Your task to perform on an android device: turn on improve location accuracy Image 0: 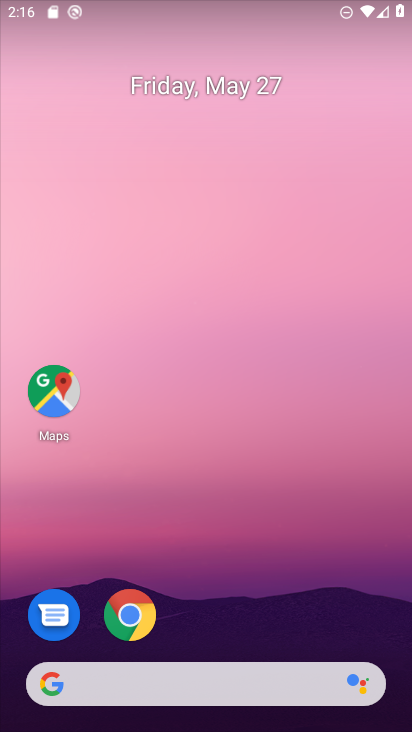
Step 0: drag from (227, 613) to (231, 227)
Your task to perform on an android device: turn on improve location accuracy Image 1: 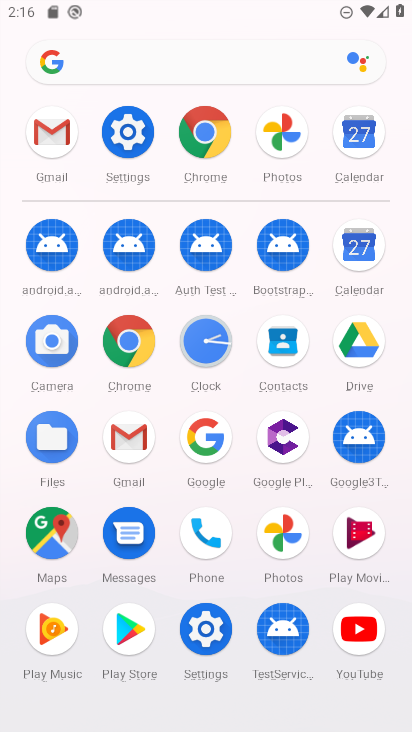
Step 1: click (218, 630)
Your task to perform on an android device: turn on improve location accuracy Image 2: 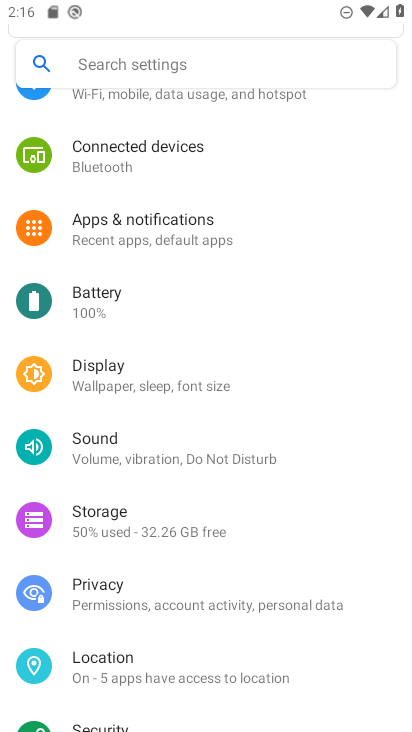
Step 2: click (154, 673)
Your task to perform on an android device: turn on improve location accuracy Image 3: 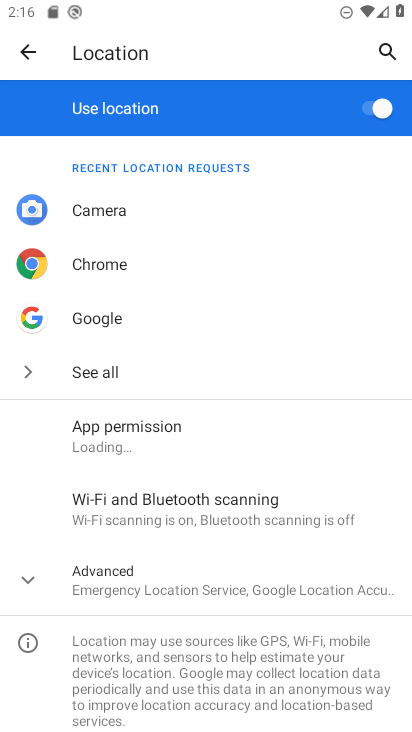
Step 3: click (172, 596)
Your task to perform on an android device: turn on improve location accuracy Image 4: 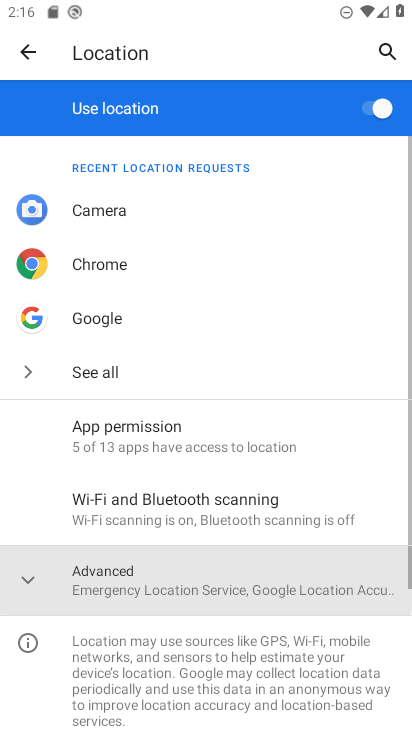
Step 4: drag from (174, 576) to (203, 223)
Your task to perform on an android device: turn on improve location accuracy Image 5: 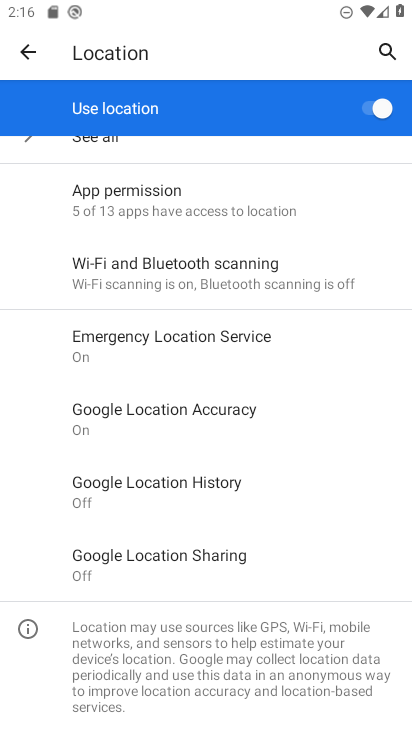
Step 5: click (217, 420)
Your task to perform on an android device: turn on improve location accuracy Image 6: 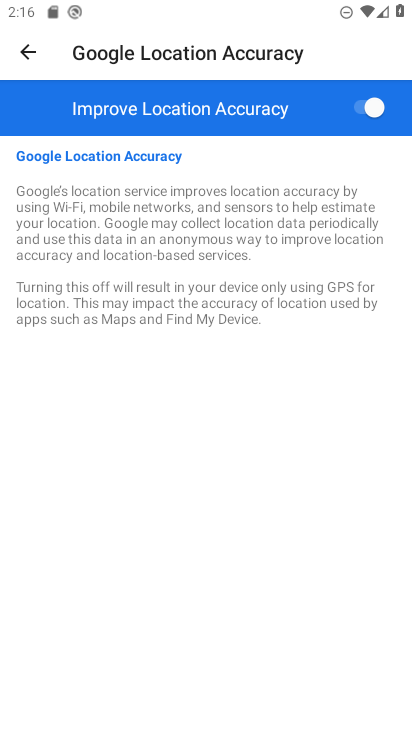
Step 6: task complete